Your task to perform on an android device: Go to accessibility settings Image 0: 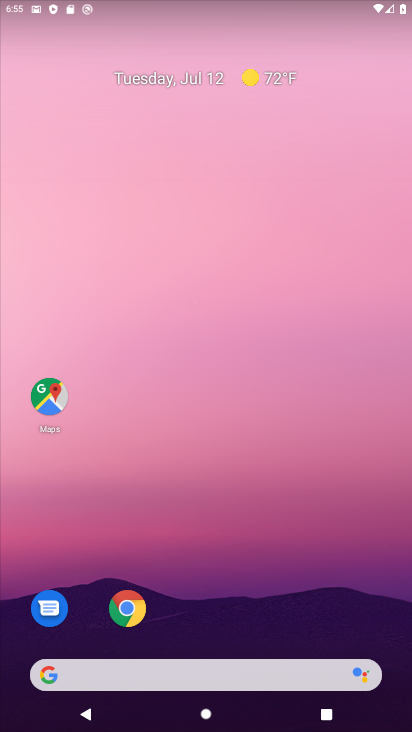
Step 0: drag from (220, 559) to (165, 127)
Your task to perform on an android device: Go to accessibility settings Image 1: 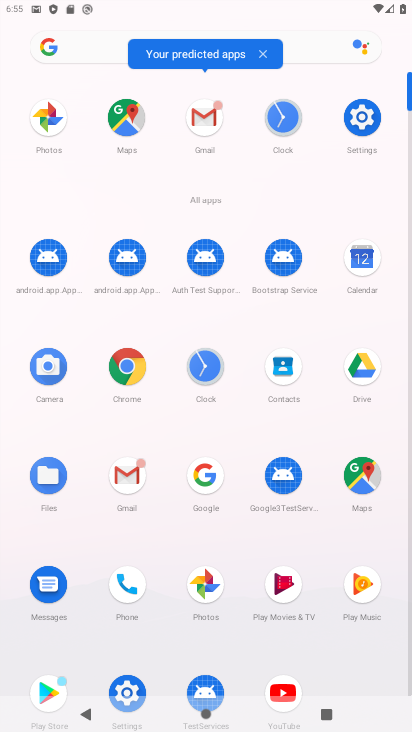
Step 1: click (367, 118)
Your task to perform on an android device: Go to accessibility settings Image 2: 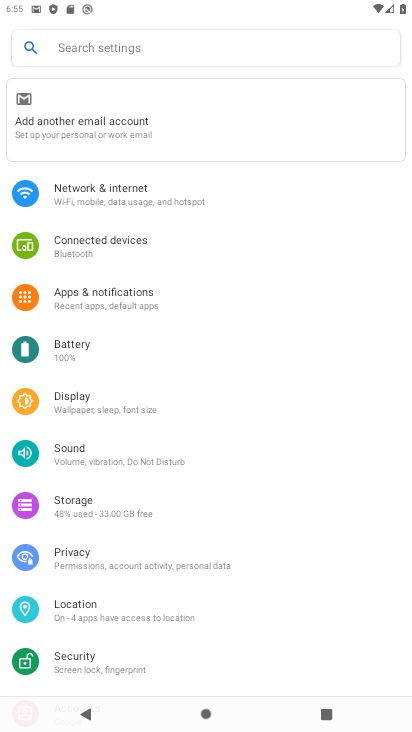
Step 2: drag from (260, 581) to (237, 297)
Your task to perform on an android device: Go to accessibility settings Image 3: 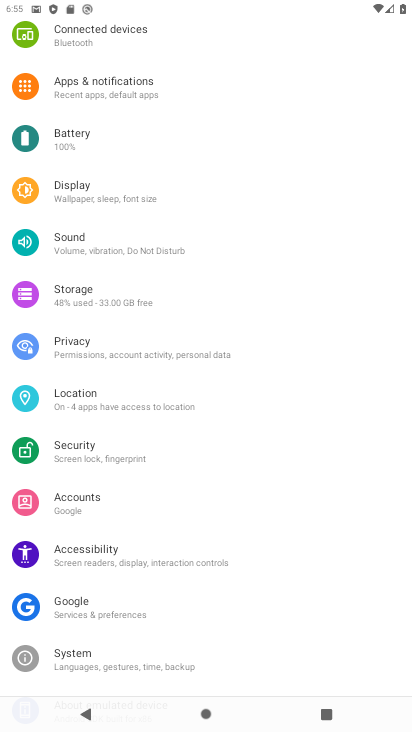
Step 3: click (74, 553)
Your task to perform on an android device: Go to accessibility settings Image 4: 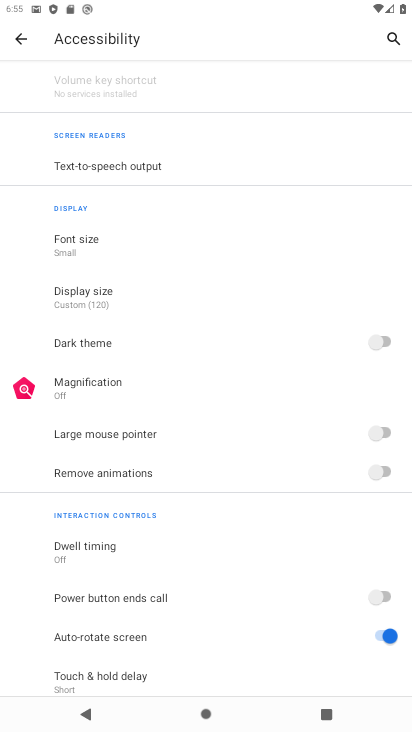
Step 4: task complete